Your task to perform on an android device: change notification settings in the gmail app Image 0: 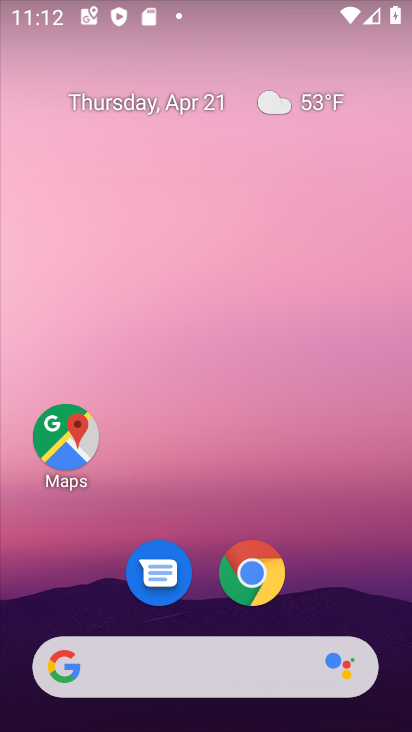
Step 0: drag from (322, 587) to (342, 125)
Your task to perform on an android device: change notification settings in the gmail app Image 1: 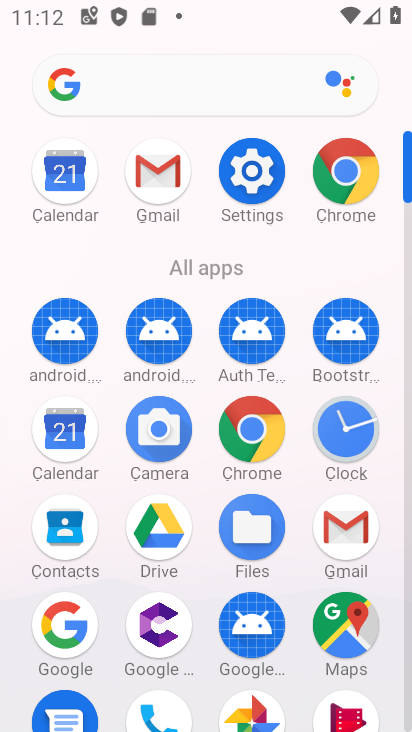
Step 1: click (345, 527)
Your task to perform on an android device: change notification settings in the gmail app Image 2: 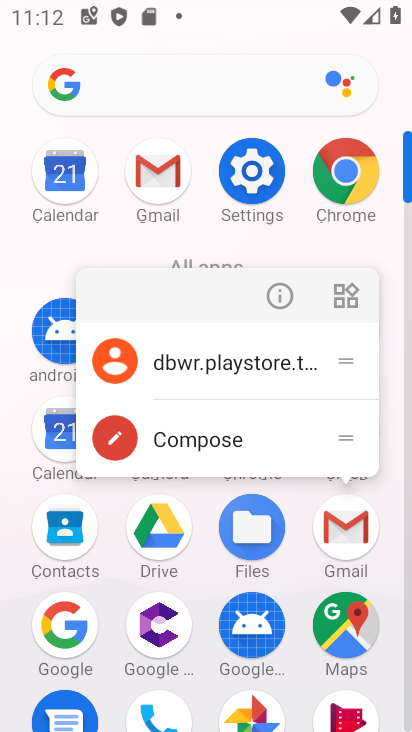
Step 2: click (280, 295)
Your task to perform on an android device: change notification settings in the gmail app Image 3: 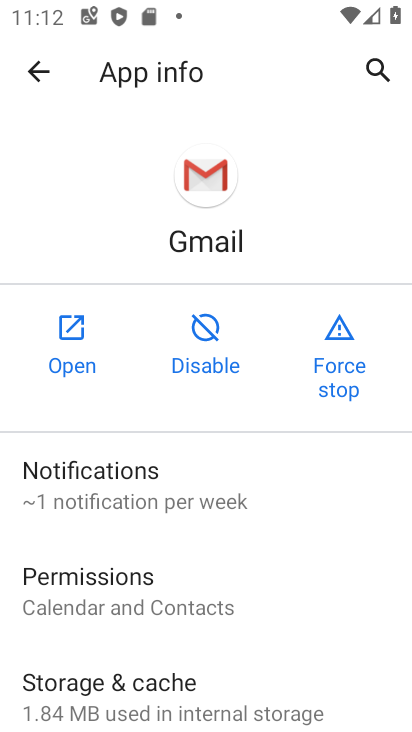
Step 3: click (143, 488)
Your task to perform on an android device: change notification settings in the gmail app Image 4: 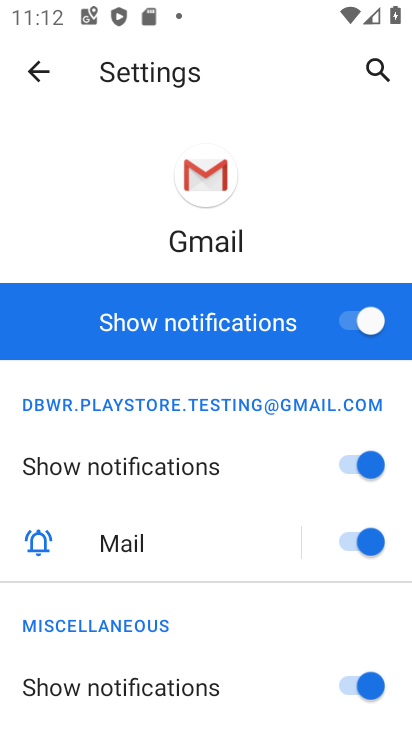
Step 4: click (347, 324)
Your task to perform on an android device: change notification settings in the gmail app Image 5: 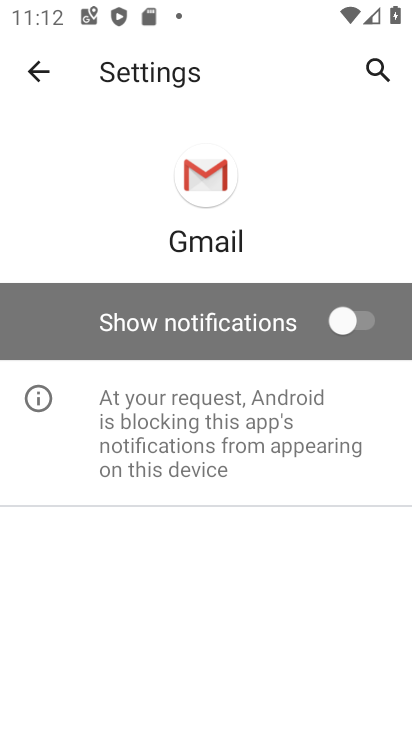
Step 5: task complete